Your task to perform on an android device: Search for seafood restaurants on Google Maps Image 0: 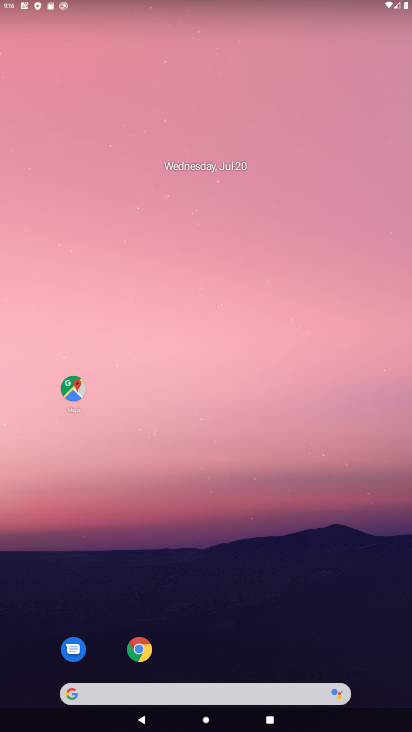
Step 0: click (134, 657)
Your task to perform on an android device: Search for seafood restaurants on Google Maps Image 1: 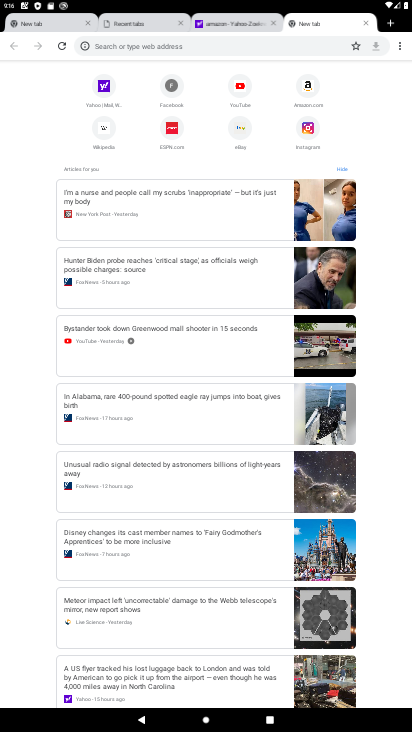
Step 1: press home button
Your task to perform on an android device: Search for seafood restaurants on Google Maps Image 2: 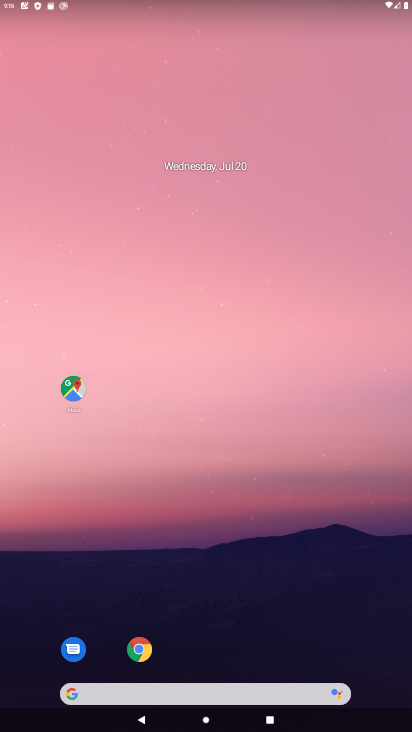
Step 2: click (69, 378)
Your task to perform on an android device: Search for seafood restaurants on Google Maps Image 3: 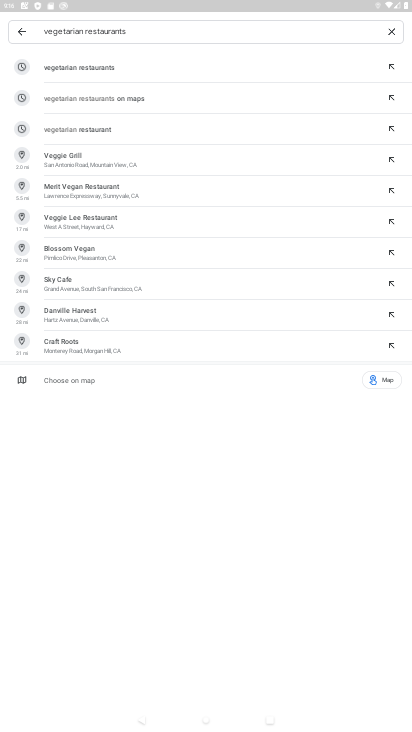
Step 3: click (385, 28)
Your task to perform on an android device: Search for seafood restaurants on Google Maps Image 4: 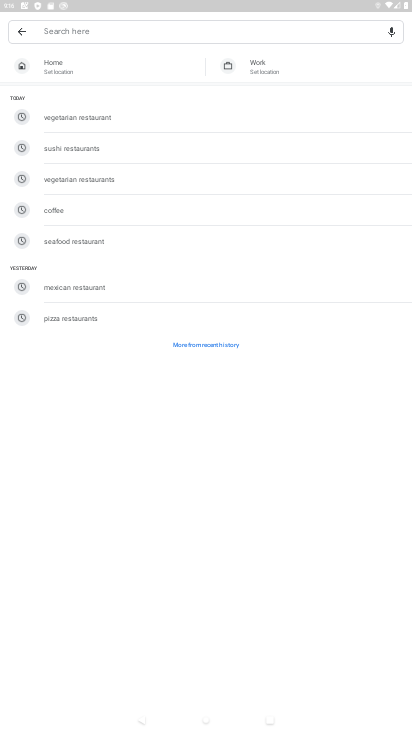
Step 4: type "SEAFOOD"
Your task to perform on an android device: Search for seafood restaurants on Google Maps Image 5: 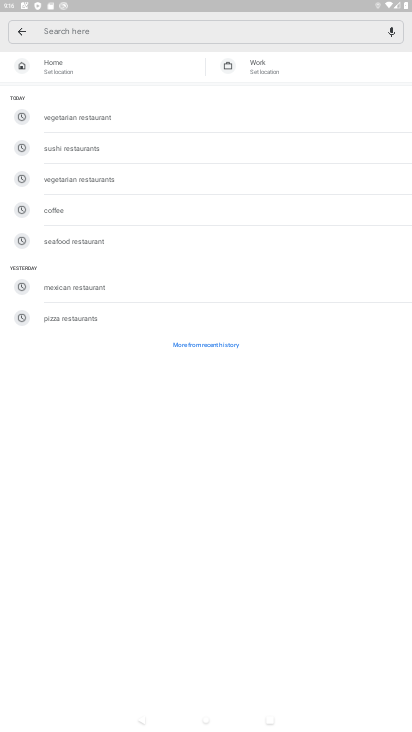
Step 5: task complete